Your task to perform on an android device: What's the weather? Image 0: 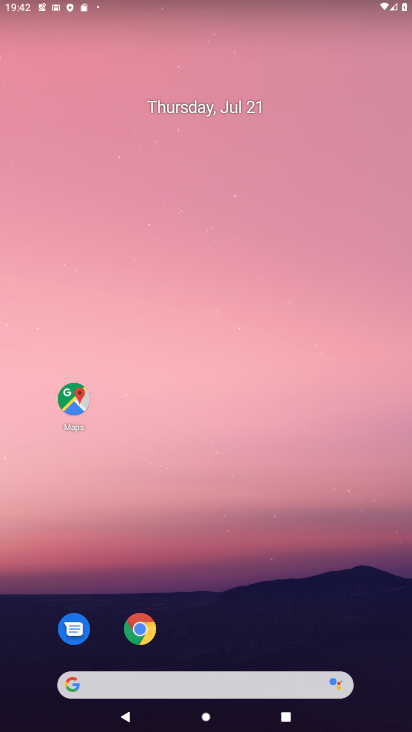
Step 0: click (195, 681)
Your task to perform on an android device: What's the weather? Image 1: 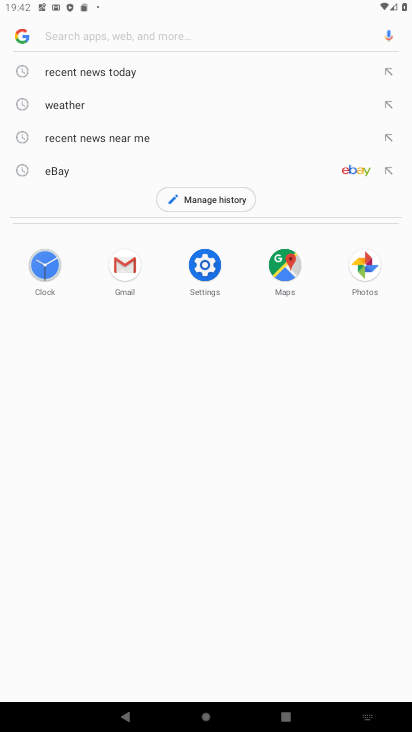
Step 1: click (72, 92)
Your task to perform on an android device: What's the weather? Image 2: 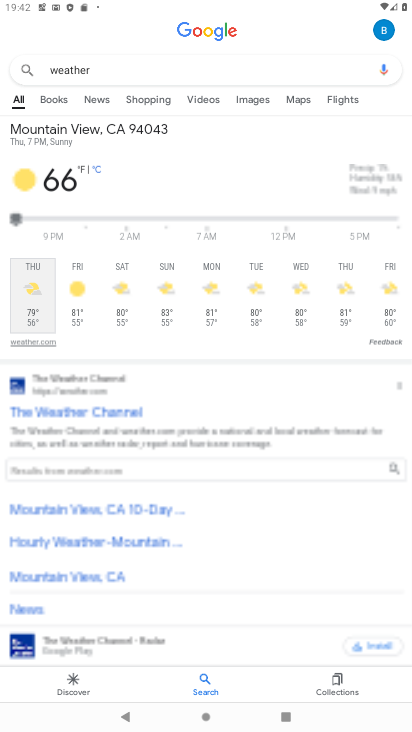
Step 2: task complete